Your task to perform on an android device: Show me popular videos on Youtube Image 0: 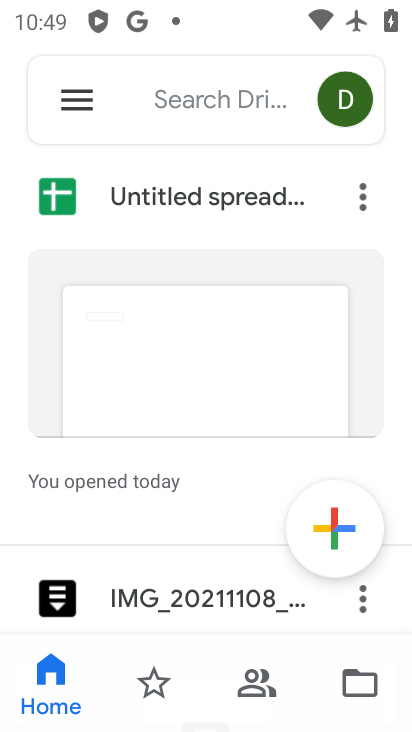
Step 0: press home button
Your task to perform on an android device: Show me popular videos on Youtube Image 1: 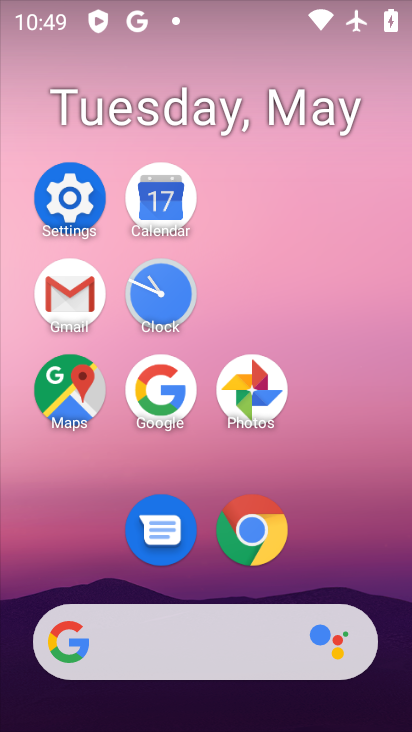
Step 1: drag from (335, 543) to (357, 204)
Your task to perform on an android device: Show me popular videos on Youtube Image 2: 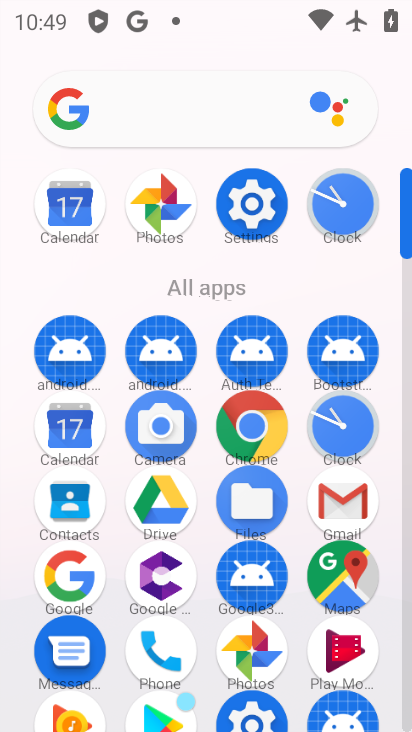
Step 2: drag from (219, 619) to (258, 262)
Your task to perform on an android device: Show me popular videos on Youtube Image 3: 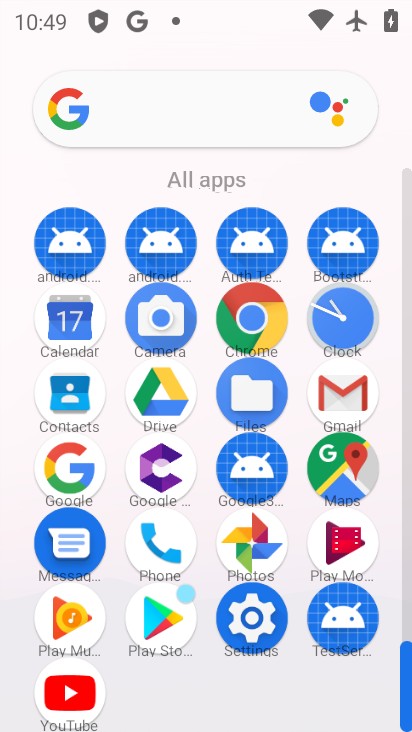
Step 3: click (58, 689)
Your task to perform on an android device: Show me popular videos on Youtube Image 4: 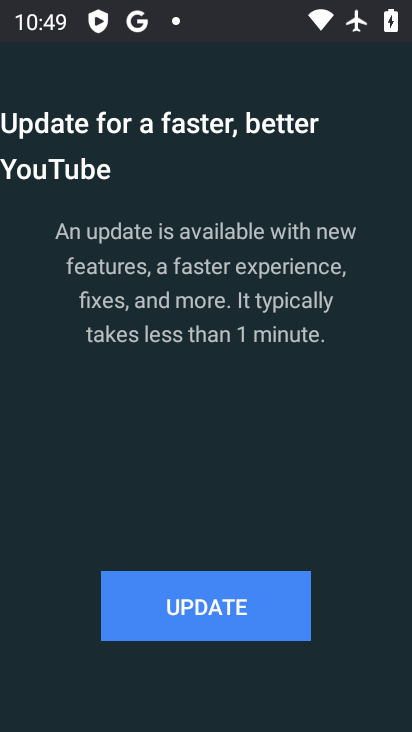
Step 4: click (149, 601)
Your task to perform on an android device: Show me popular videos on Youtube Image 5: 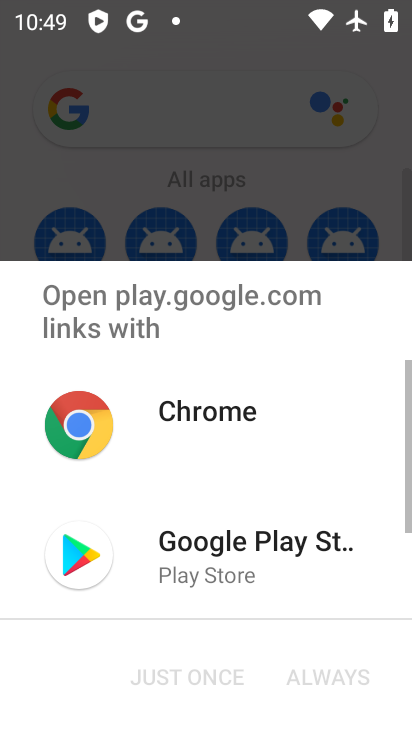
Step 5: drag from (189, 562) to (290, 562)
Your task to perform on an android device: Show me popular videos on Youtube Image 6: 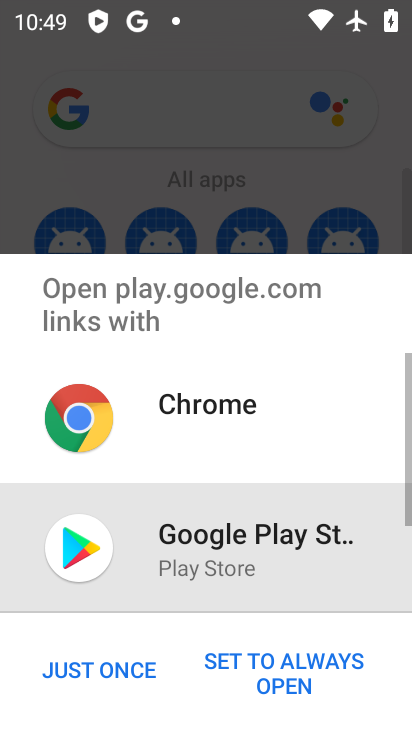
Step 6: drag from (189, 562) to (290, 562)
Your task to perform on an android device: Show me popular videos on Youtube Image 7: 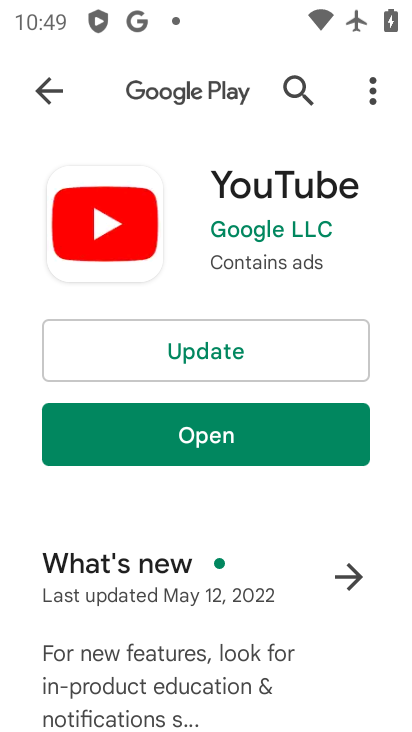
Step 7: click (229, 363)
Your task to perform on an android device: Show me popular videos on Youtube Image 8: 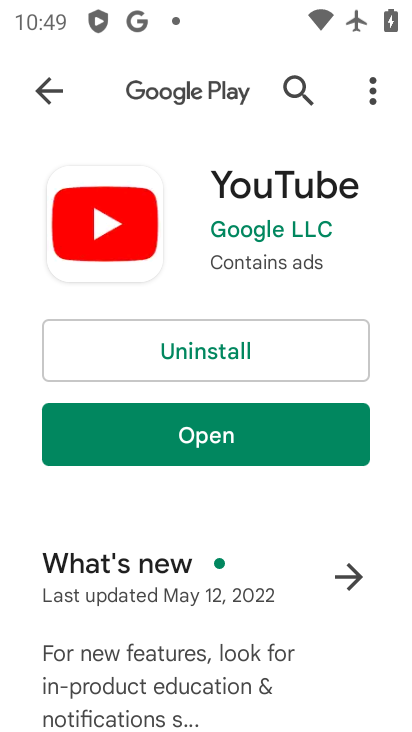
Step 8: click (245, 435)
Your task to perform on an android device: Show me popular videos on Youtube Image 9: 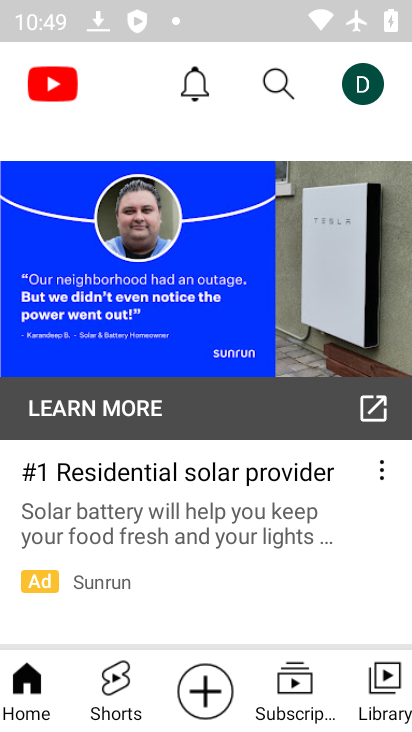
Step 9: task complete